Your task to perform on an android device: Turn off the flashlight Image 0: 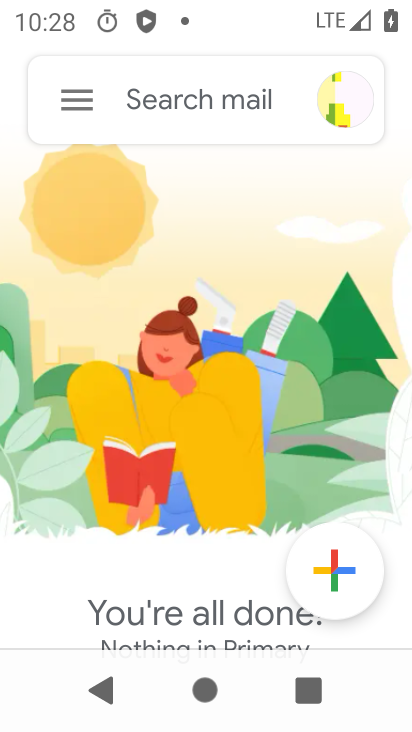
Step 0: press home button
Your task to perform on an android device: Turn off the flashlight Image 1: 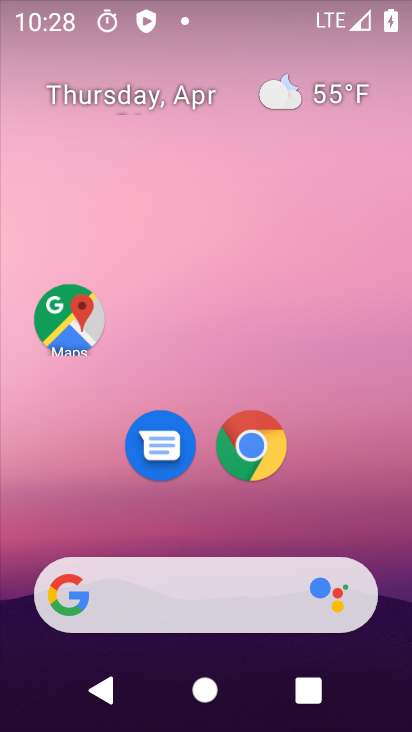
Step 1: task complete